Your task to perform on an android device: Open the map Image 0: 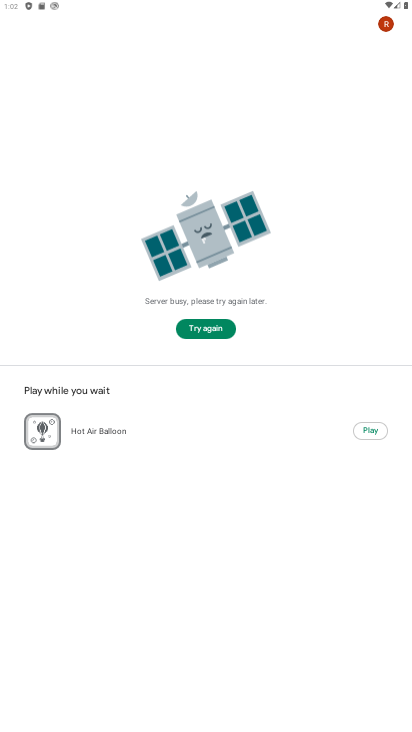
Step 0: press home button
Your task to perform on an android device: Open the map Image 1: 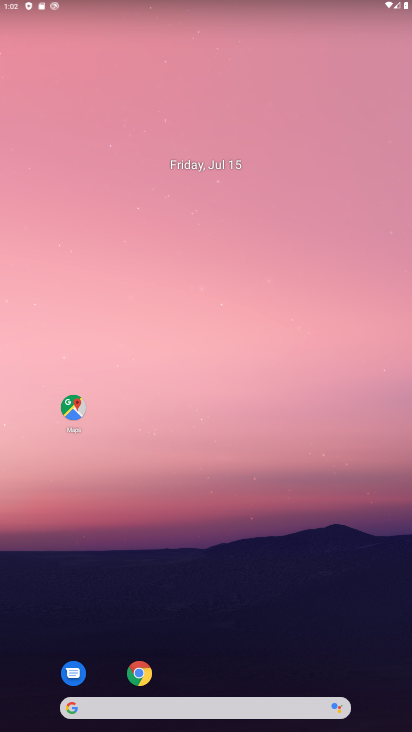
Step 1: drag from (268, 513) to (190, 1)
Your task to perform on an android device: Open the map Image 2: 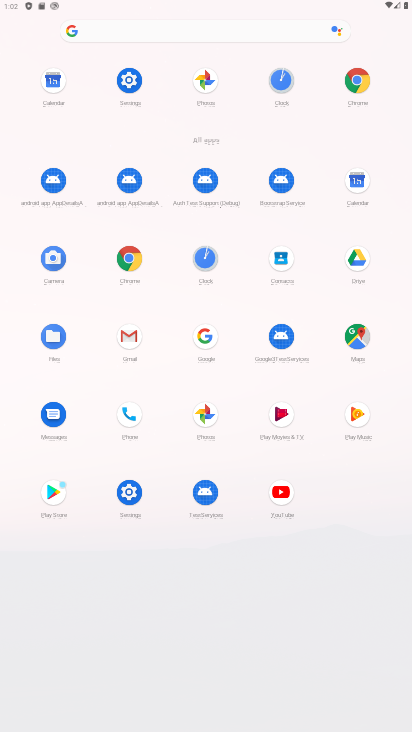
Step 2: click (358, 342)
Your task to perform on an android device: Open the map Image 3: 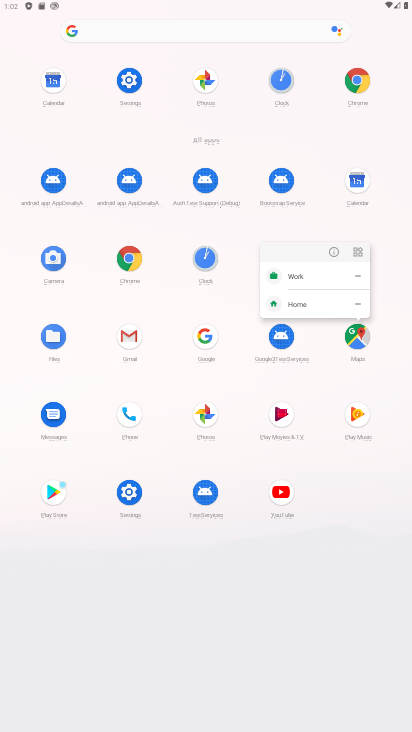
Step 3: click (349, 343)
Your task to perform on an android device: Open the map Image 4: 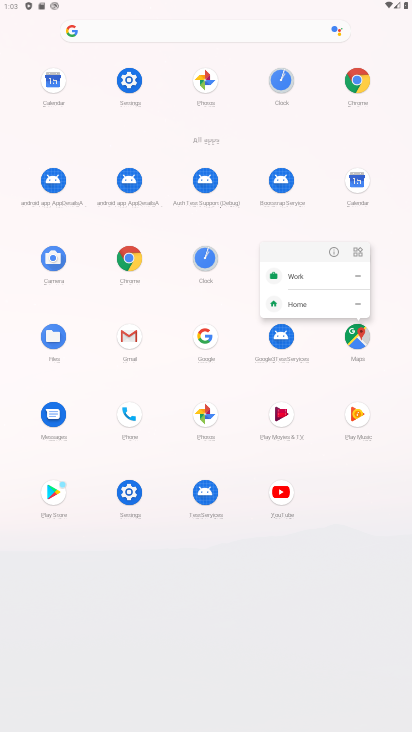
Step 4: click (349, 342)
Your task to perform on an android device: Open the map Image 5: 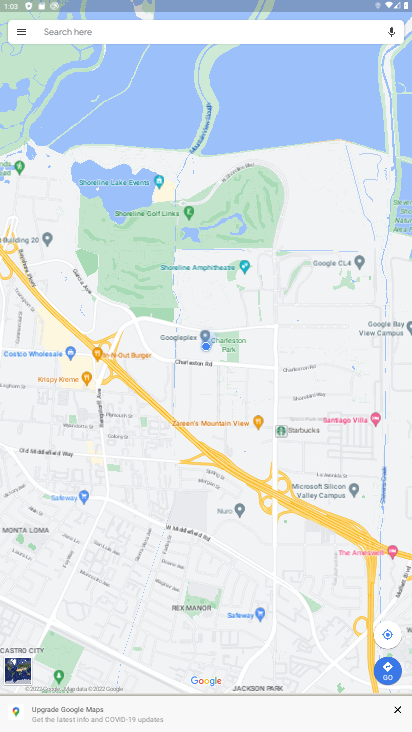
Step 5: task complete